Your task to perform on an android device: snooze an email in the gmail app Image 0: 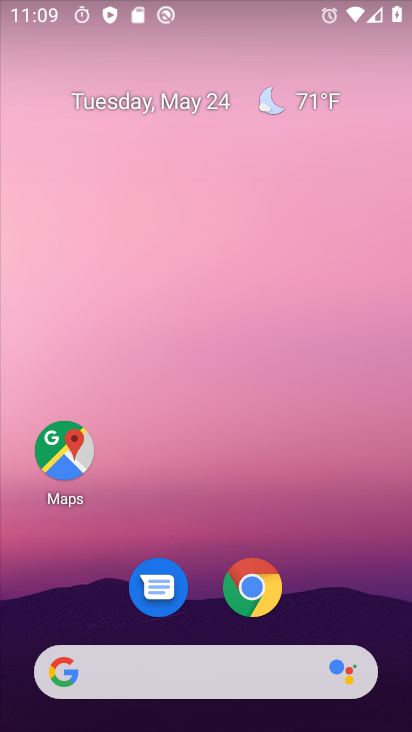
Step 0: click (237, 97)
Your task to perform on an android device: snooze an email in the gmail app Image 1: 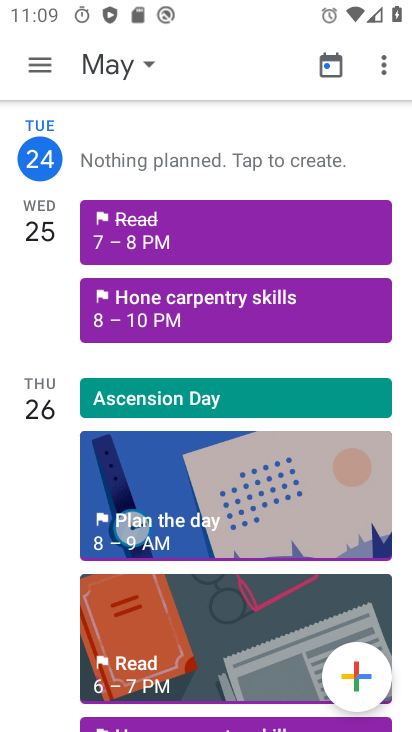
Step 1: press back button
Your task to perform on an android device: snooze an email in the gmail app Image 2: 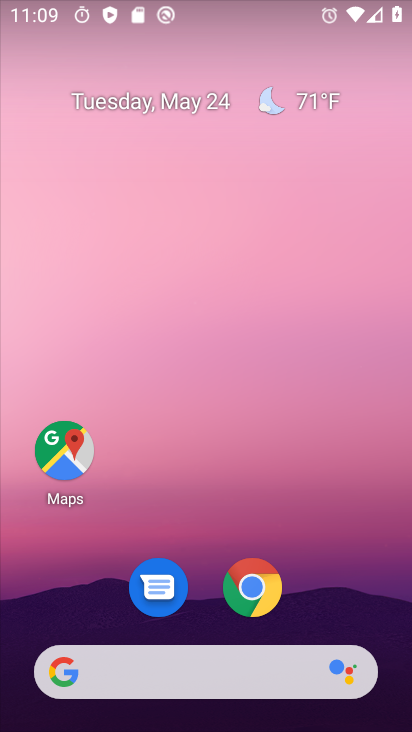
Step 2: drag from (358, 585) to (317, 100)
Your task to perform on an android device: snooze an email in the gmail app Image 3: 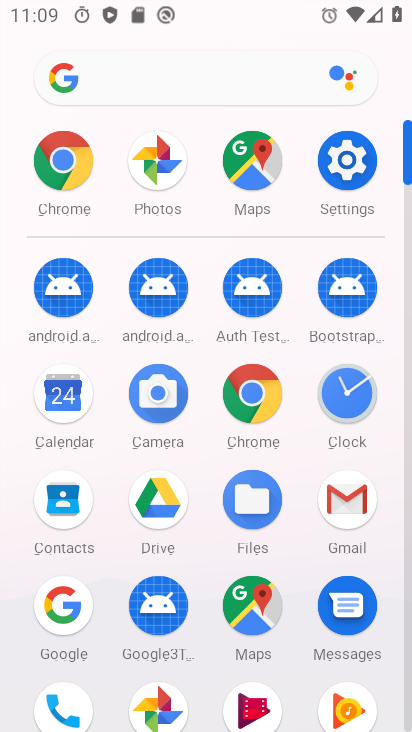
Step 3: click (334, 485)
Your task to perform on an android device: snooze an email in the gmail app Image 4: 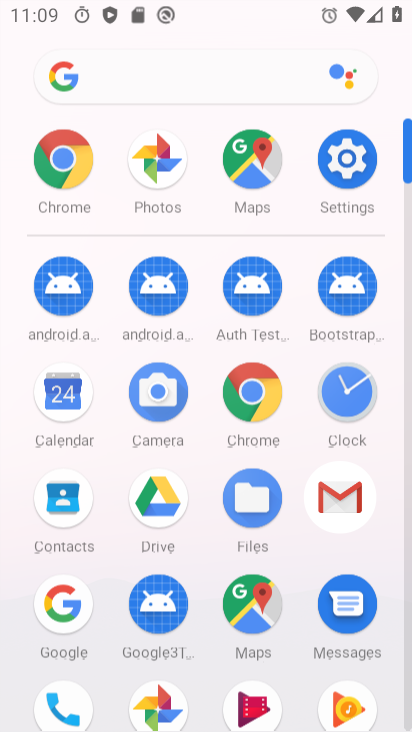
Step 4: click (336, 485)
Your task to perform on an android device: snooze an email in the gmail app Image 5: 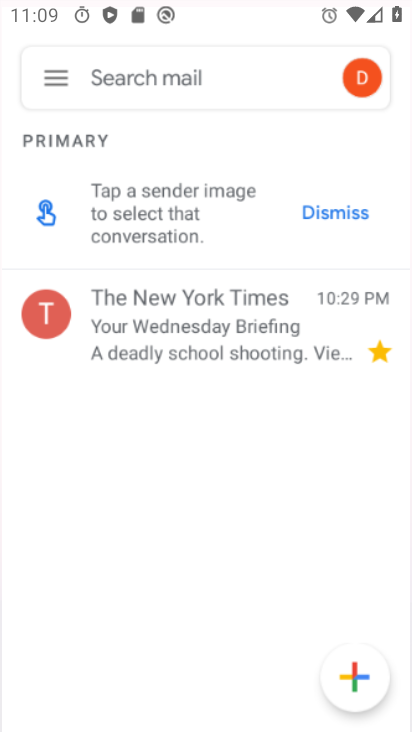
Step 5: click (336, 485)
Your task to perform on an android device: snooze an email in the gmail app Image 6: 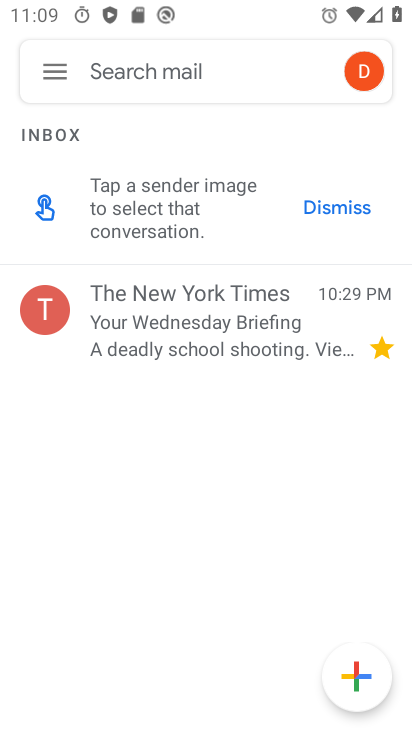
Step 6: click (157, 320)
Your task to perform on an android device: snooze an email in the gmail app Image 7: 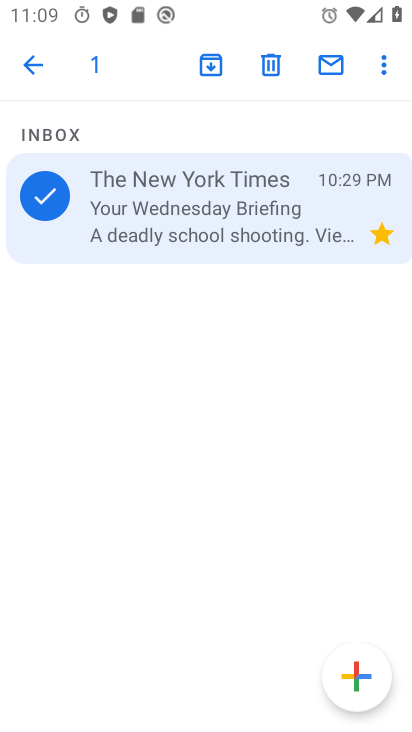
Step 7: click (374, 63)
Your task to perform on an android device: snooze an email in the gmail app Image 8: 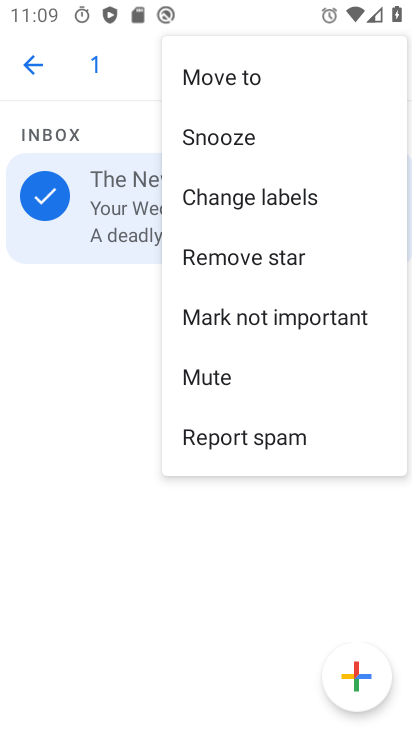
Step 8: click (221, 139)
Your task to perform on an android device: snooze an email in the gmail app Image 9: 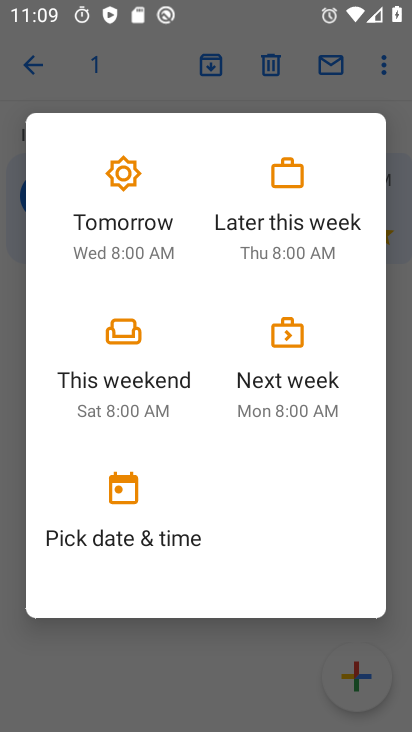
Step 9: click (129, 208)
Your task to perform on an android device: snooze an email in the gmail app Image 10: 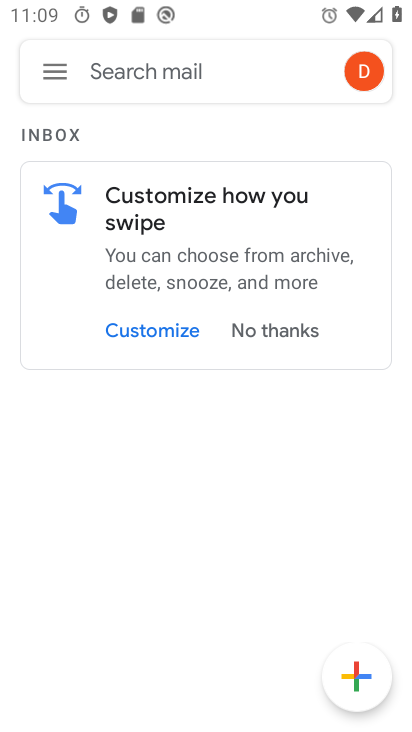
Step 10: task complete